Your task to perform on an android device: turn on improve location accuracy Image 0: 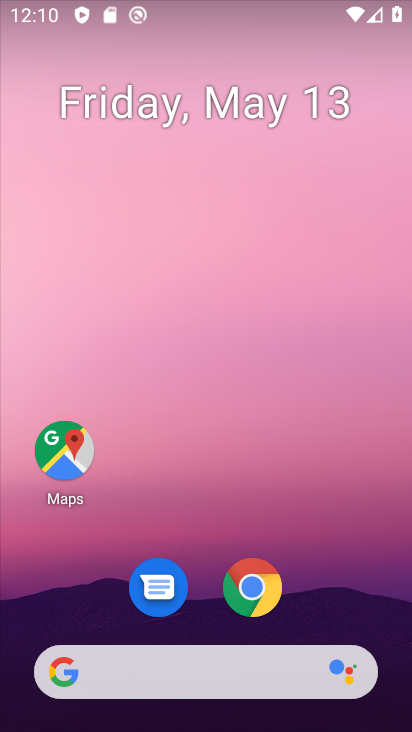
Step 0: drag from (224, 631) to (300, 47)
Your task to perform on an android device: turn on improve location accuracy Image 1: 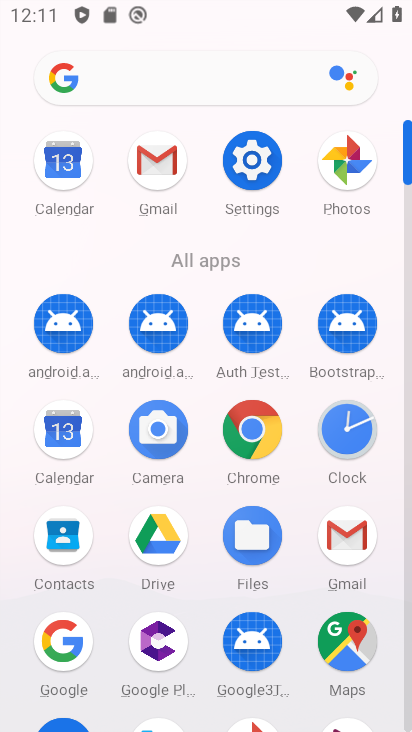
Step 1: click (241, 179)
Your task to perform on an android device: turn on improve location accuracy Image 2: 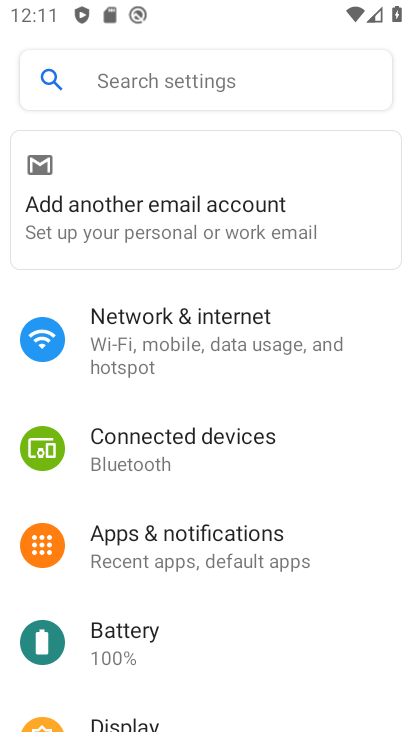
Step 2: drag from (150, 591) to (269, 136)
Your task to perform on an android device: turn on improve location accuracy Image 3: 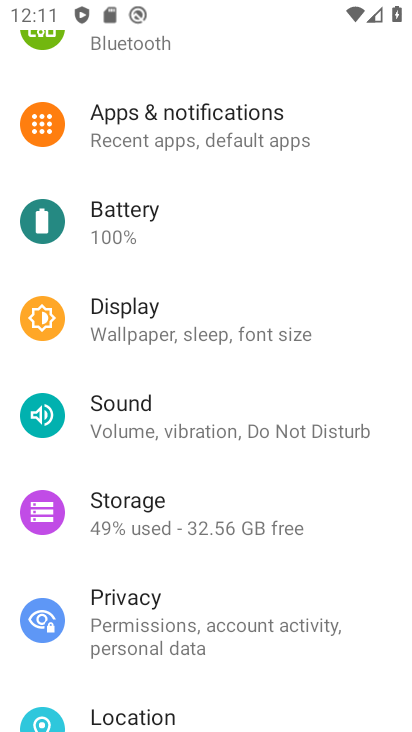
Step 3: drag from (122, 664) to (196, 331)
Your task to perform on an android device: turn on improve location accuracy Image 4: 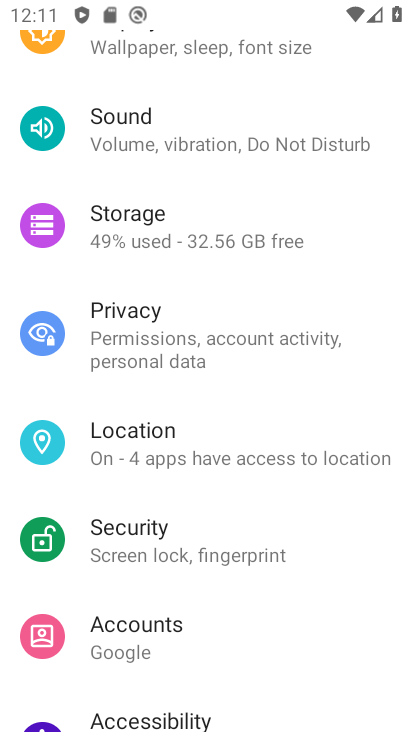
Step 4: click (121, 439)
Your task to perform on an android device: turn on improve location accuracy Image 5: 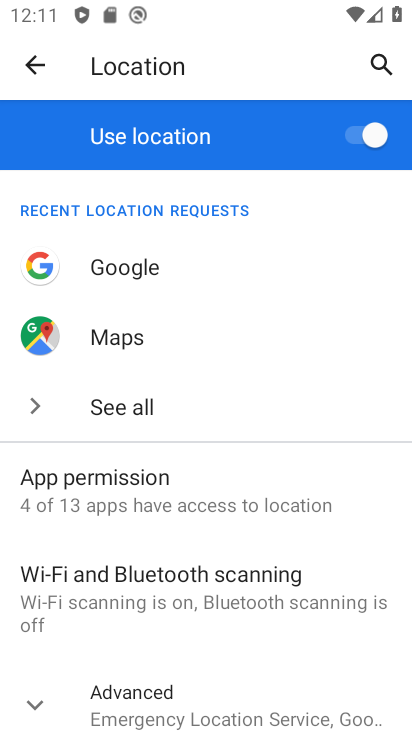
Step 5: drag from (159, 612) to (257, 296)
Your task to perform on an android device: turn on improve location accuracy Image 6: 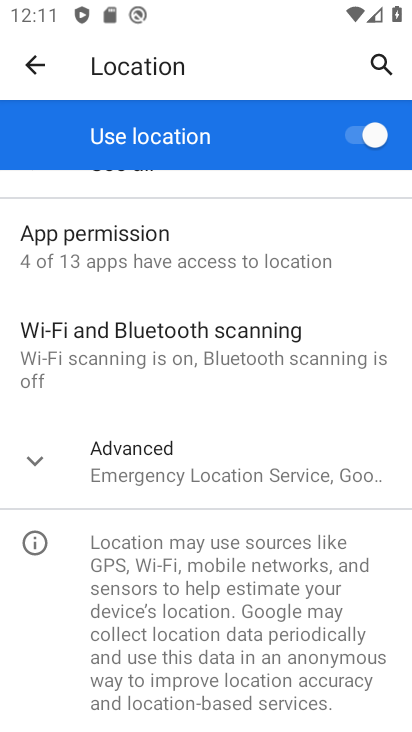
Step 6: click (190, 465)
Your task to perform on an android device: turn on improve location accuracy Image 7: 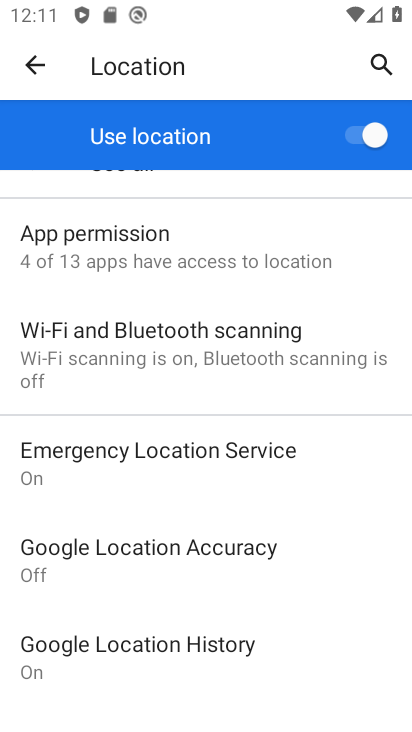
Step 7: click (131, 545)
Your task to perform on an android device: turn on improve location accuracy Image 8: 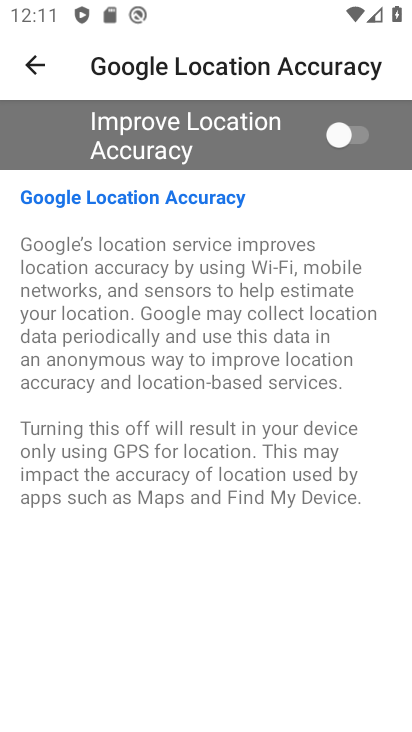
Step 8: click (342, 126)
Your task to perform on an android device: turn on improve location accuracy Image 9: 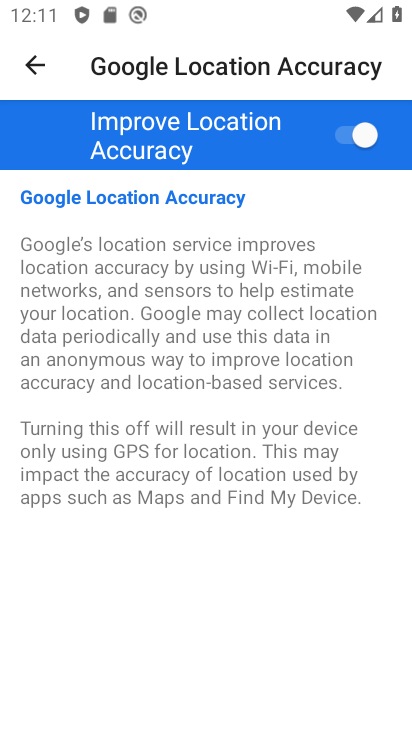
Step 9: task complete